Your task to perform on an android device: Is it going to rain today? Image 0: 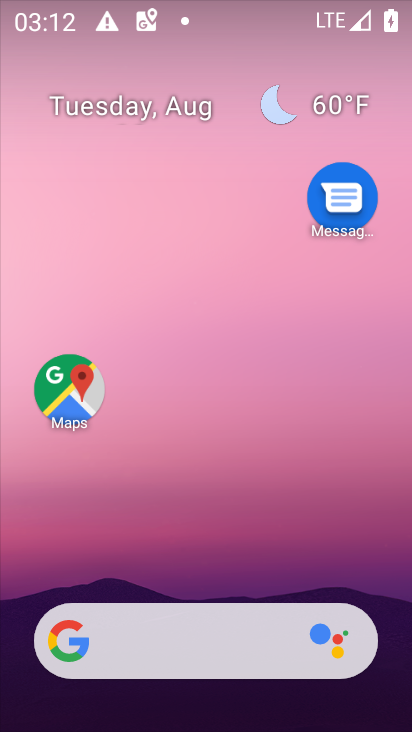
Step 0: click (218, 648)
Your task to perform on an android device: Is it going to rain today? Image 1: 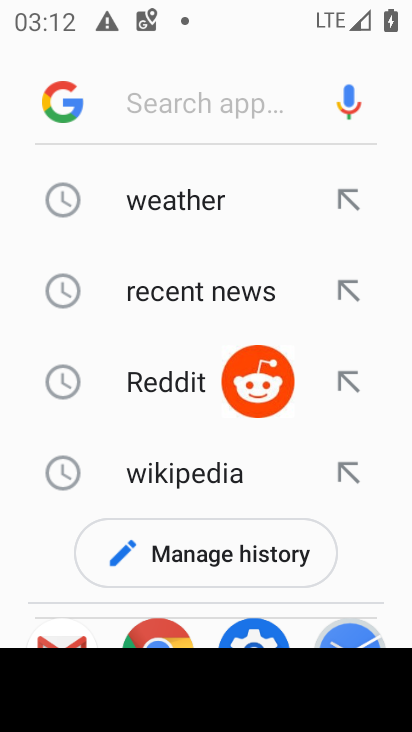
Step 1: click (100, 208)
Your task to perform on an android device: Is it going to rain today? Image 2: 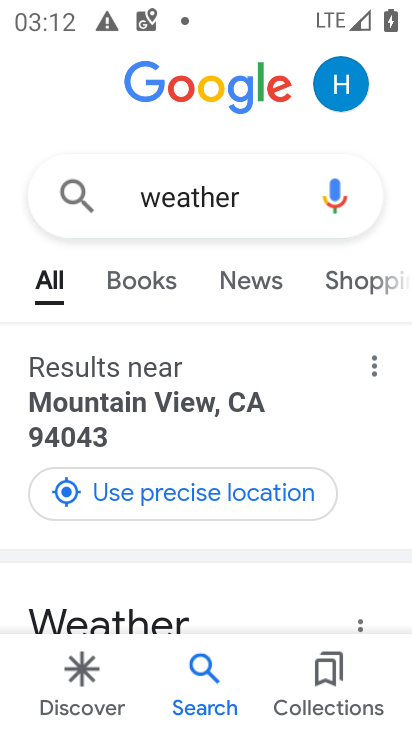
Step 2: task complete